Your task to perform on an android device: change the clock display to show seconds Image 0: 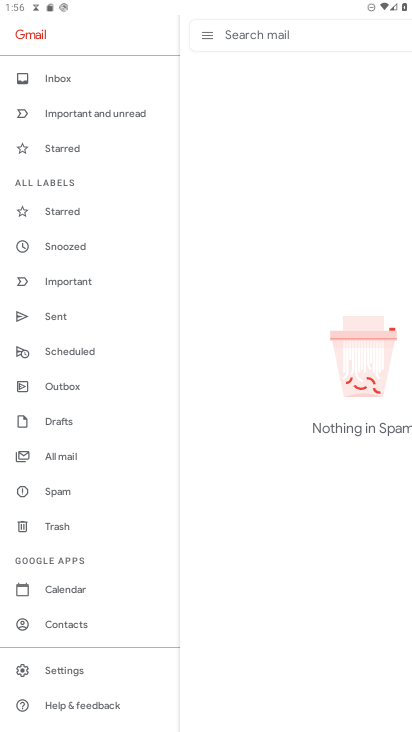
Step 0: press home button
Your task to perform on an android device: change the clock display to show seconds Image 1: 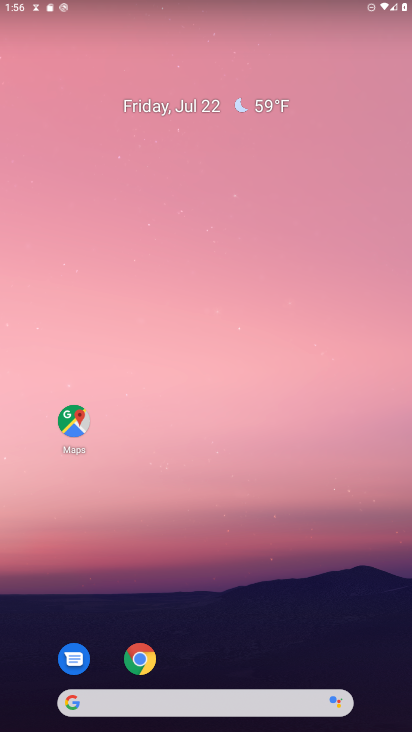
Step 1: drag from (272, 556) to (188, 43)
Your task to perform on an android device: change the clock display to show seconds Image 2: 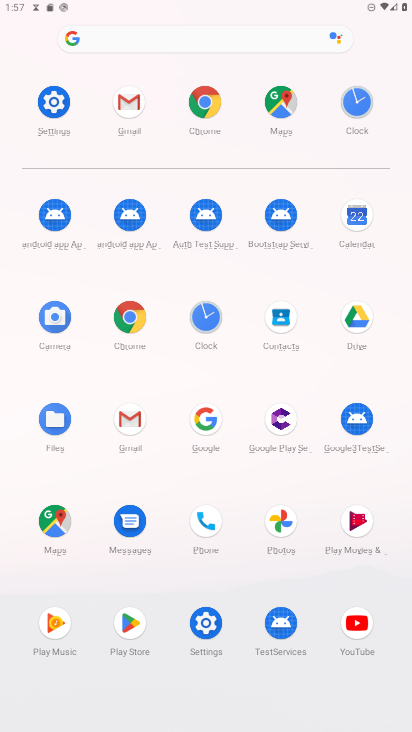
Step 2: click (364, 110)
Your task to perform on an android device: change the clock display to show seconds Image 3: 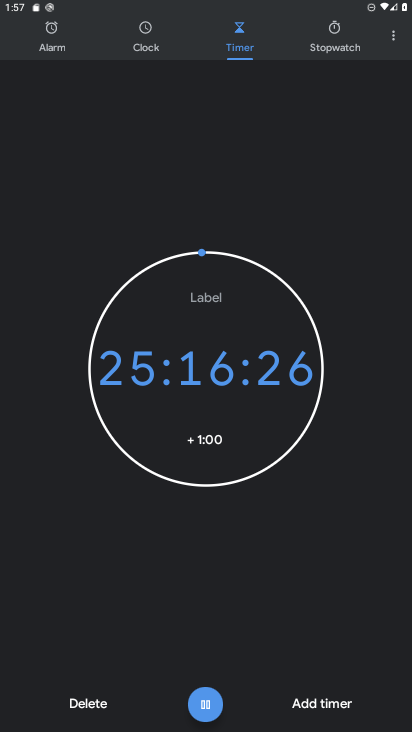
Step 3: click (392, 44)
Your task to perform on an android device: change the clock display to show seconds Image 4: 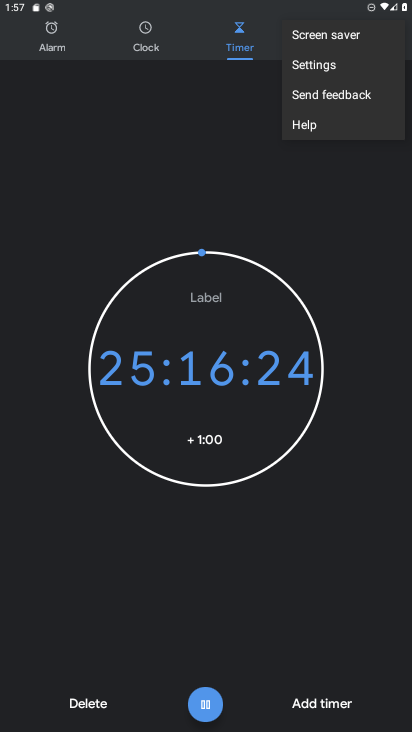
Step 4: click (303, 60)
Your task to perform on an android device: change the clock display to show seconds Image 5: 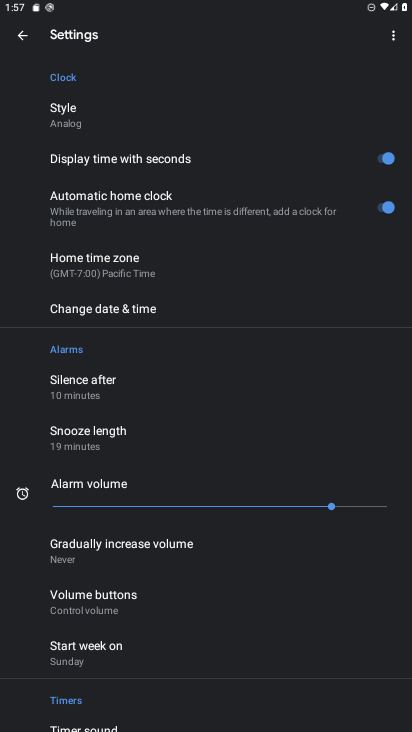
Step 5: task complete